Your task to perform on an android device: Open calendar and show me the first week of next month Image 0: 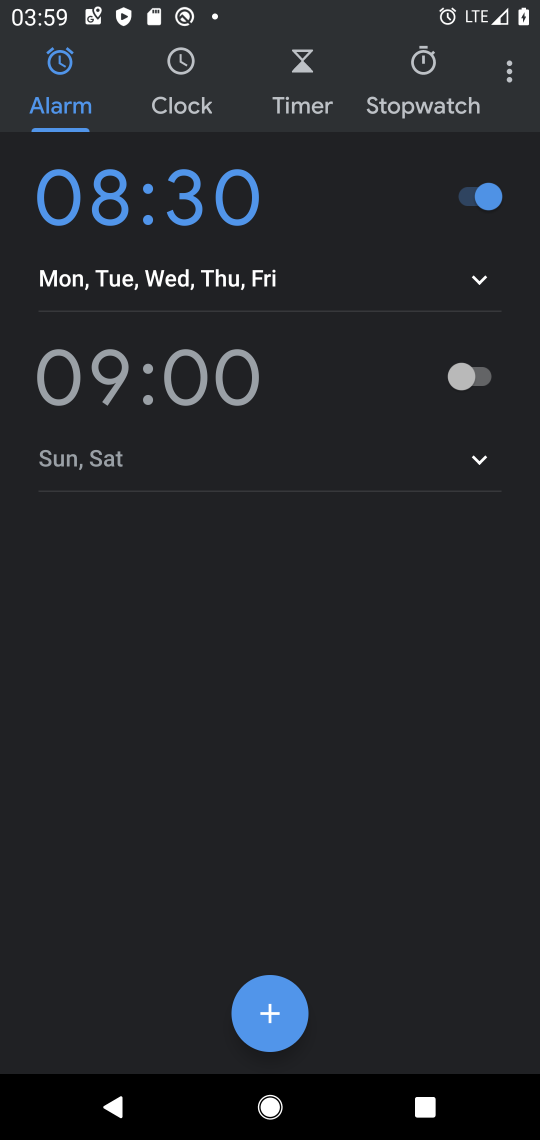
Step 0: press back button
Your task to perform on an android device: Open calendar and show me the first week of next month Image 1: 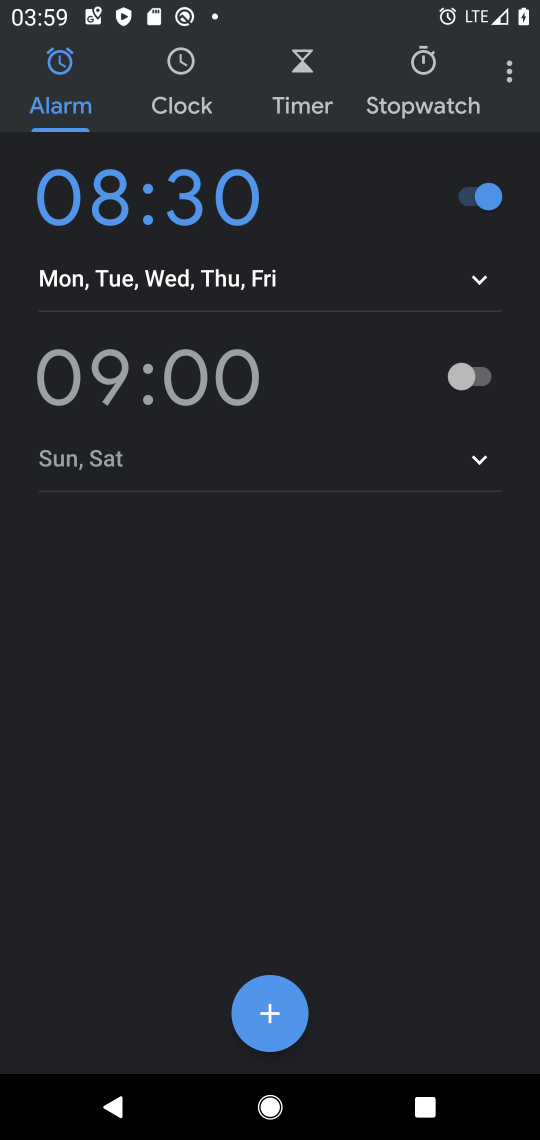
Step 1: press back button
Your task to perform on an android device: Open calendar and show me the first week of next month Image 2: 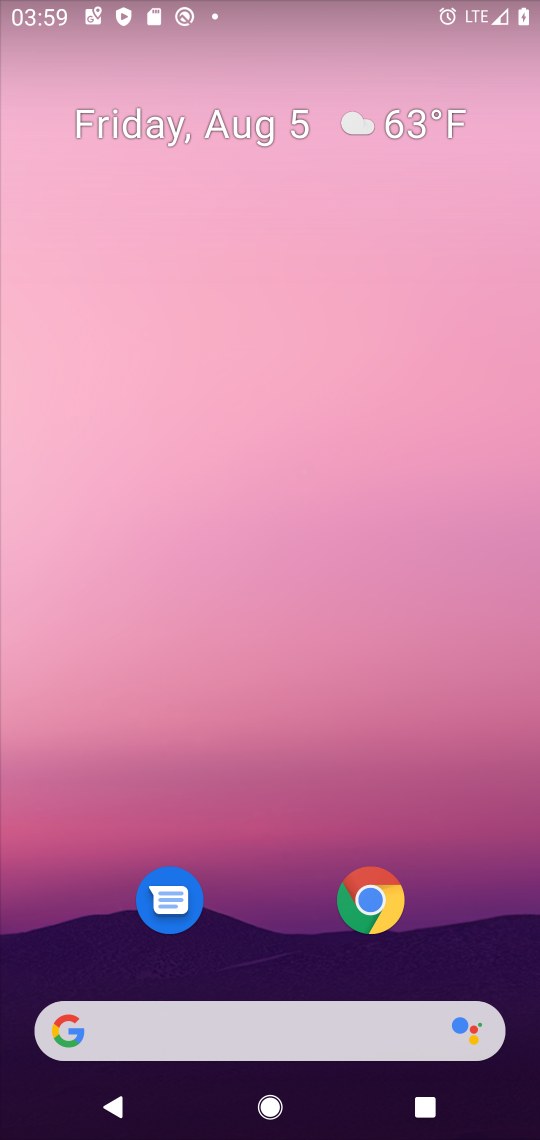
Step 2: drag from (256, 782) to (387, 6)
Your task to perform on an android device: Open calendar and show me the first week of next month Image 3: 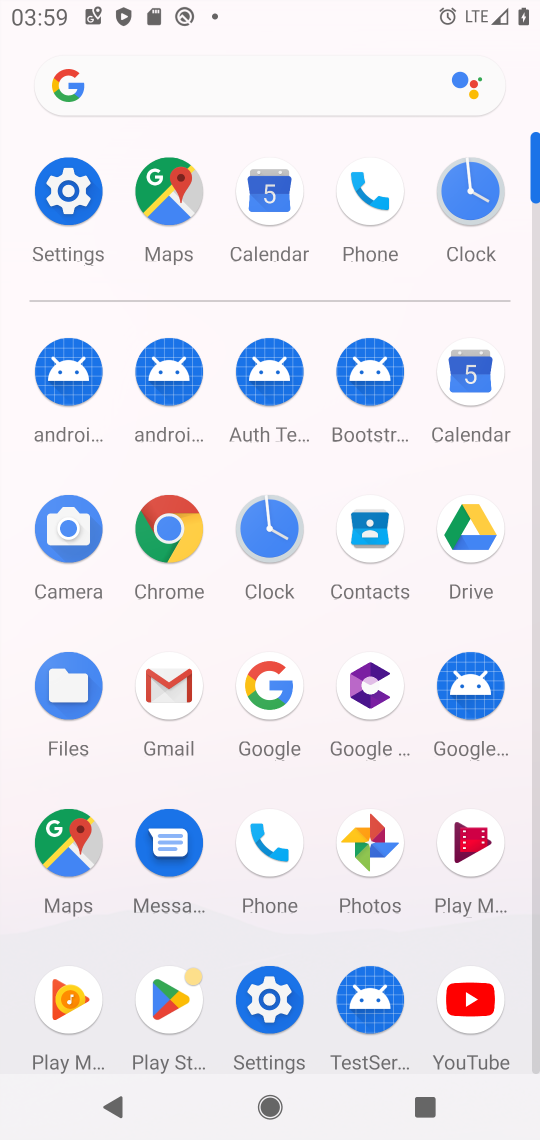
Step 3: click (467, 379)
Your task to perform on an android device: Open calendar and show me the first week of next month Image 4: 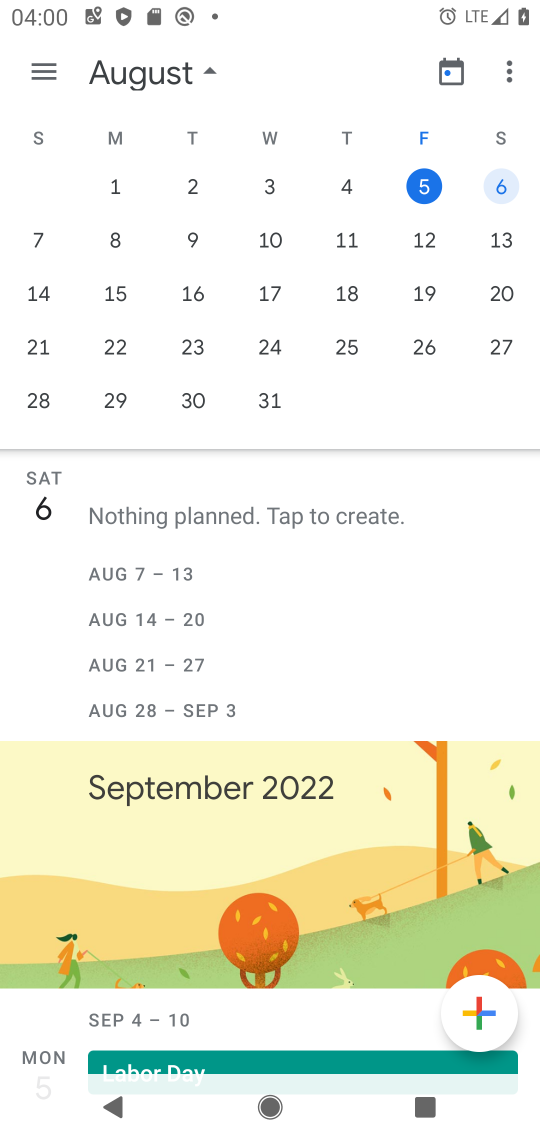
Step 4: drag from (462, 292) to (8, 300)
Your task to perform on an android device: Open calendar and show me the first week of next month Image 5: 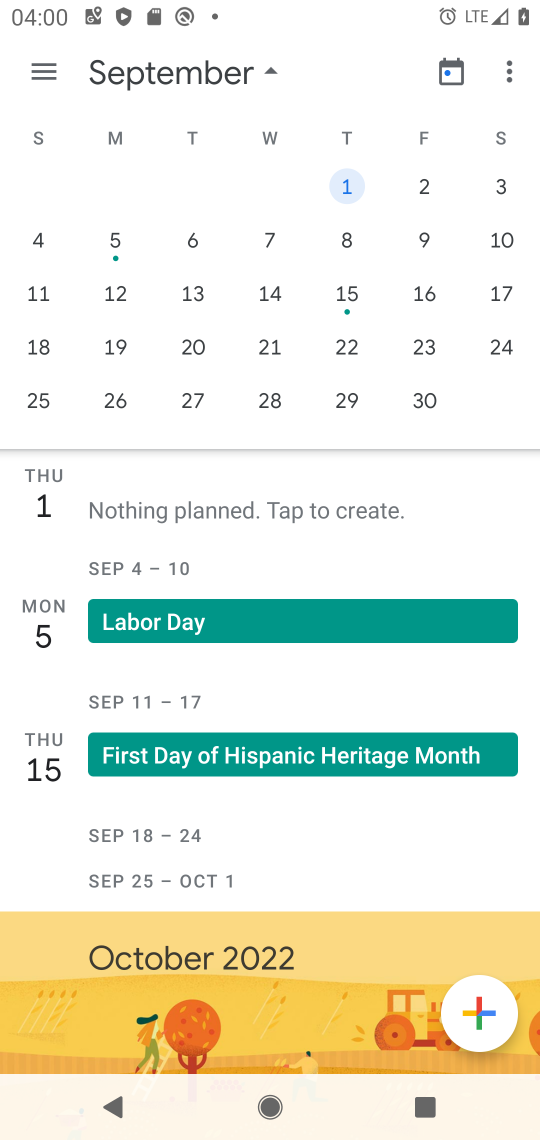
Step 5: click (352, 180)
Your task to perform on an android device: Open calendar and show me the first week of next month Image 6: 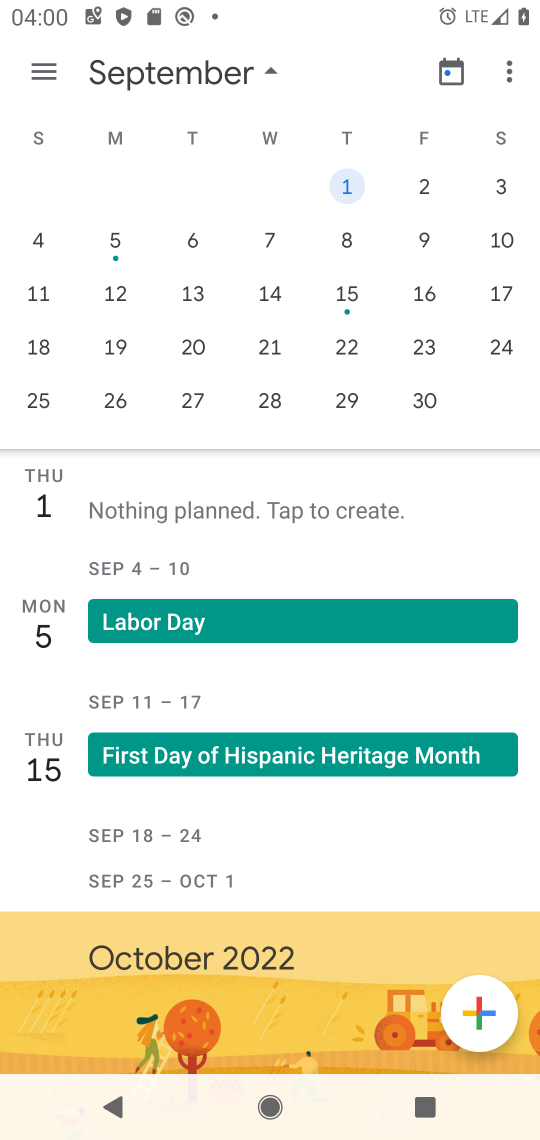
Step 6: task complete